Your task to perform on an android device: turn off wifi Image 0: 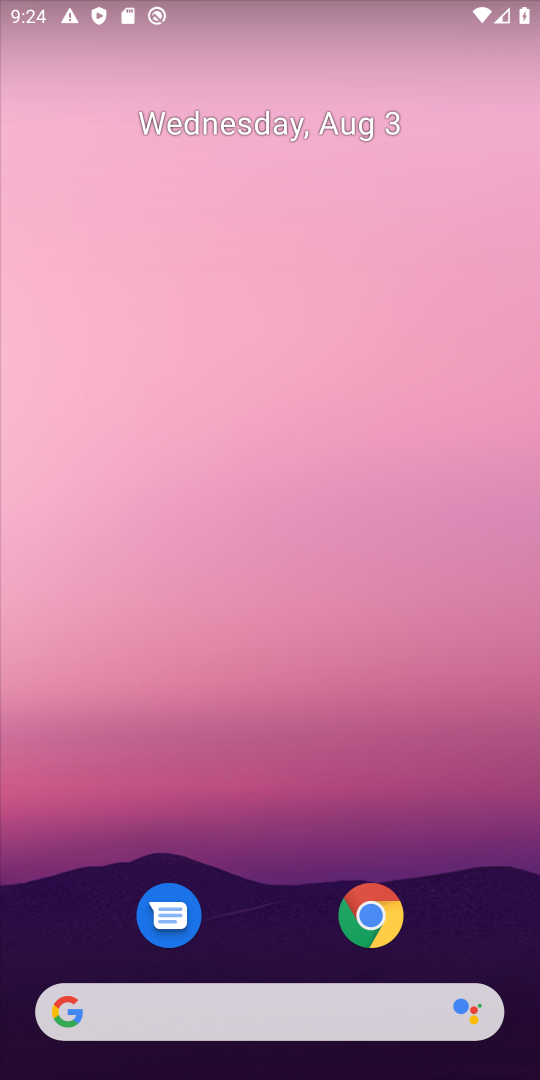
Step 0: drag from (212, 974) to (230, 395)
Your task to perform on an android device: turn off wifi Image 1: 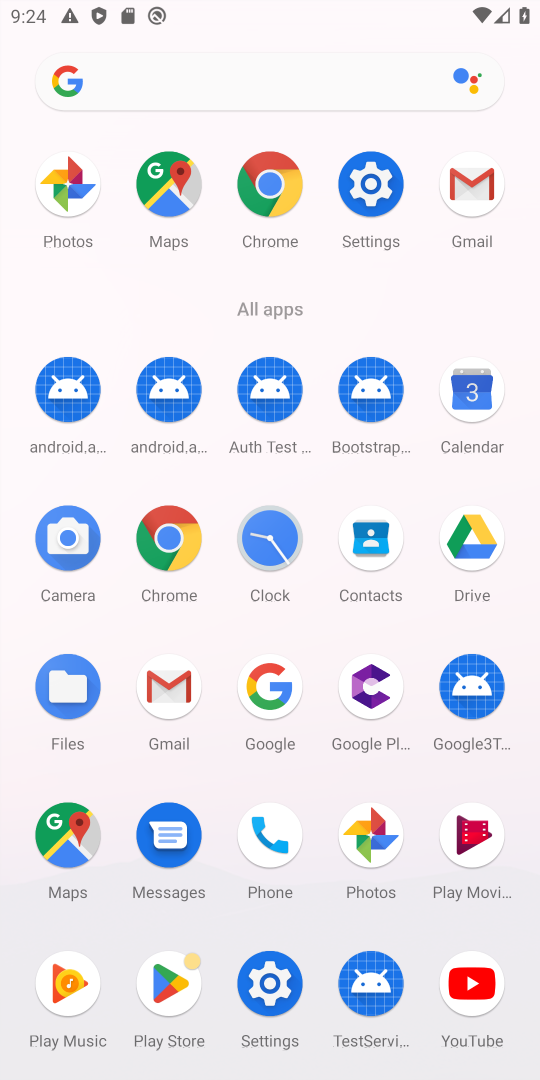
Step 1: click (346, 181)
Your task to perform on an android device: turn off wifi Image 2: 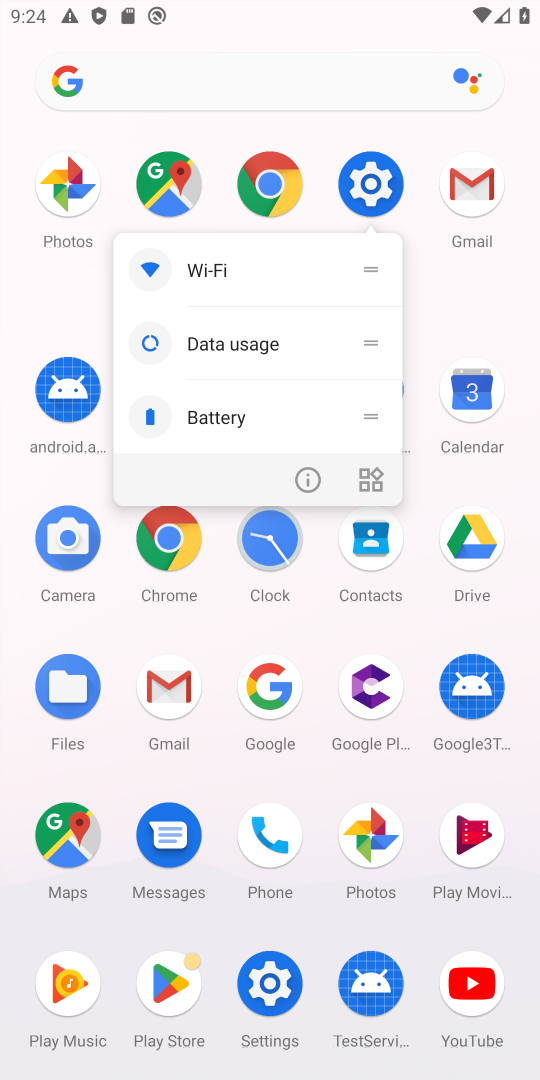
Step 2: click (390, 187)
Your task to perform on an android device: turn off wifi Image 3: 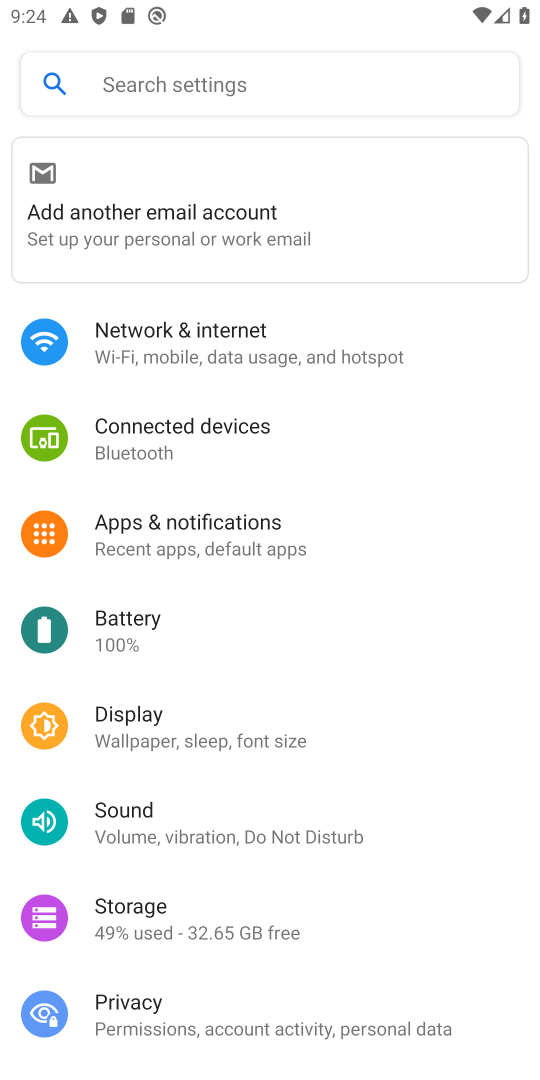
Step 3: click (208, 340)
Your task to perform on an android device: turn off wifi Image 4: 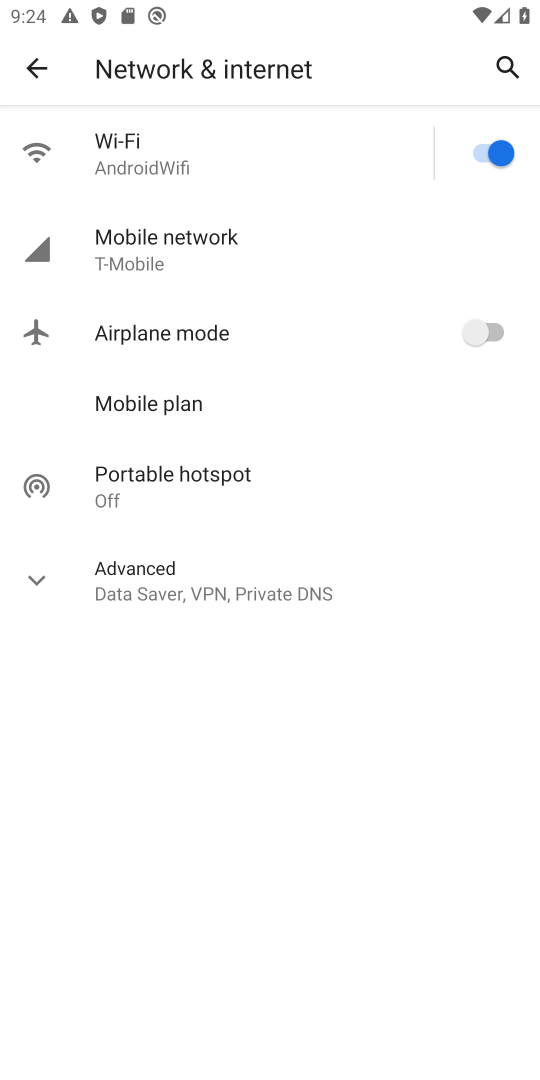
Step 4: click (480, 147)
Your task to perform on an android device: turn off wifi Image 5: 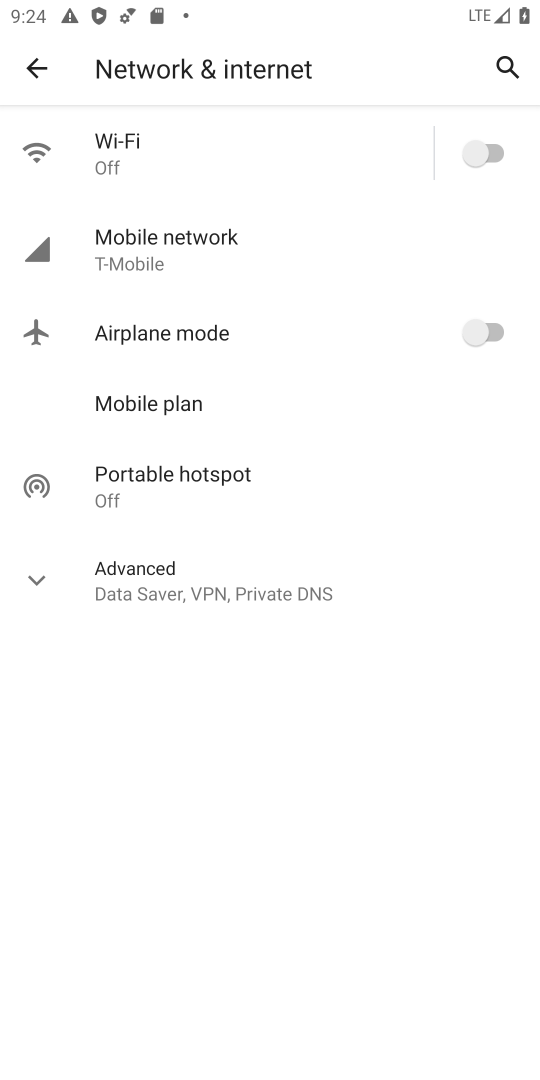
Step 5: task complete